Your task to perform on an android device: Turn off the flashlight Image 0: 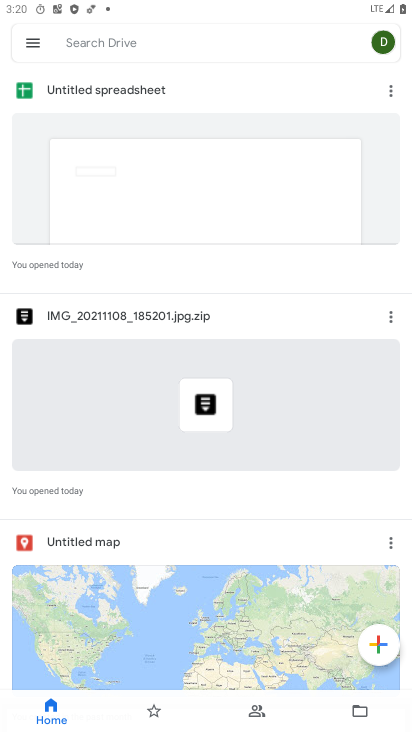
Step 0: press home button
Your task to perform on an android device: Turn off the flashlight Image 1: 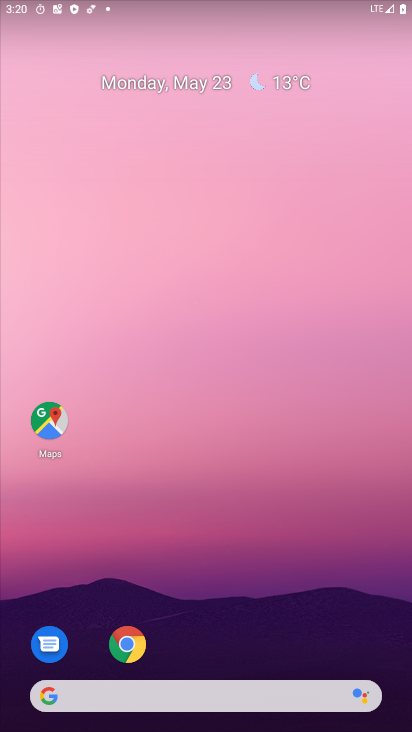
Step 1: drag from (229, 667) to (397, 14)
Your task to perform on an android device: Turn off the flashlight Image 2: 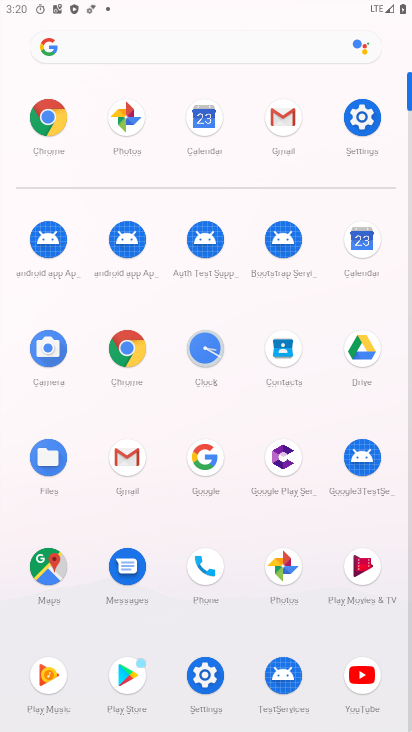
Step 2: click (201, 690)
Your task to perform on an android device: Turn off the flashlight Image 3: 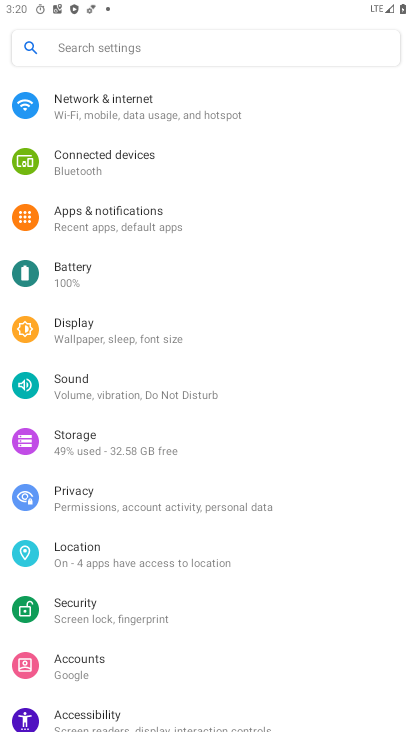
Step 3: task complete